Your task to perform on an android device: Open battery settings Image 0: 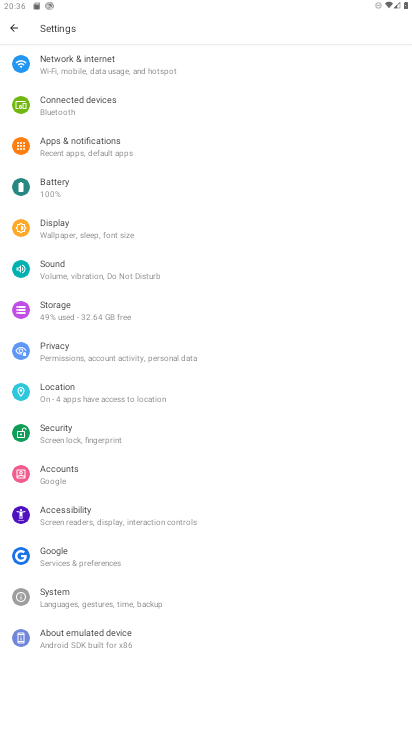
Step 0: click (58, 181)
Your task to perform on an android device: Open battery settings Image 1: 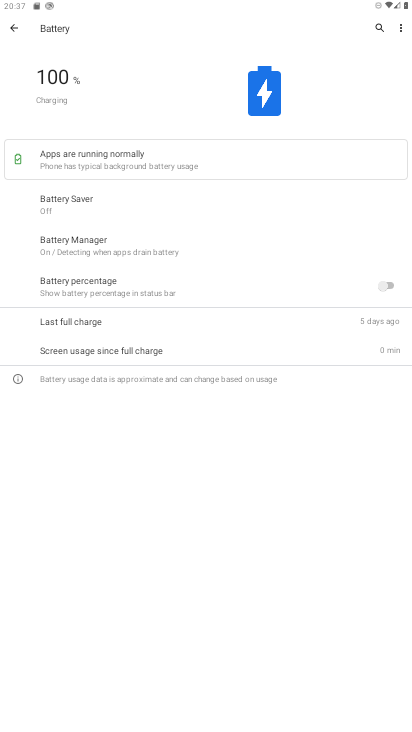
Step 1: task complete